Your task to perform on an android device: Go to accessibility settings Image 0: 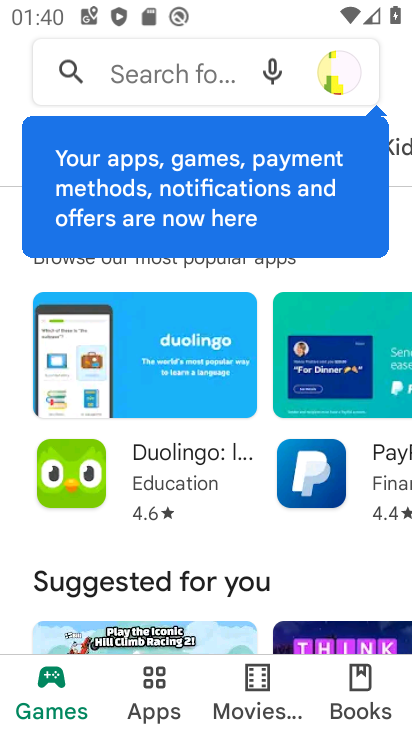
Step 0: press home button
Your task to perform on an android device: Go to accessibility settings Image 1: 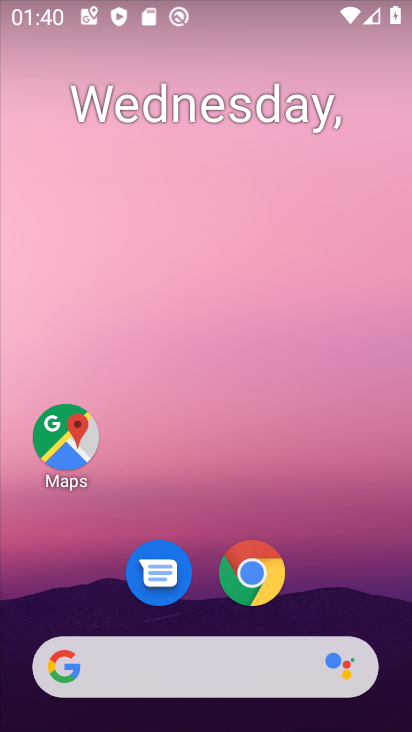
Step 1: drag from (332, 595) to (260, 17)
Your task to perform on an android device: Go to accessibility settings Image 2: 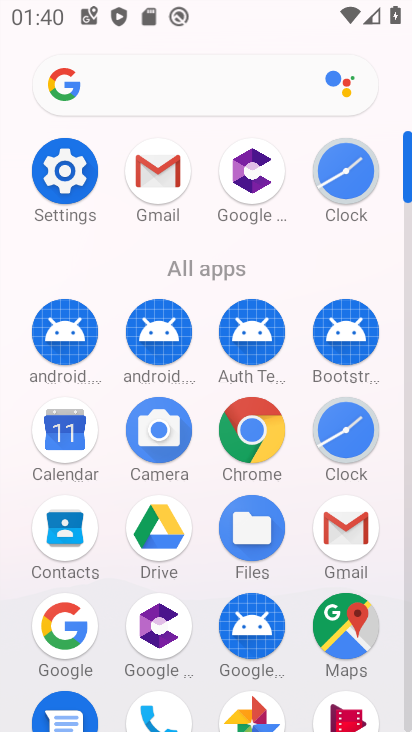
Step 2: click (62, 173)
Your task to perform on an android device: Go to accessibility settings Image 3: 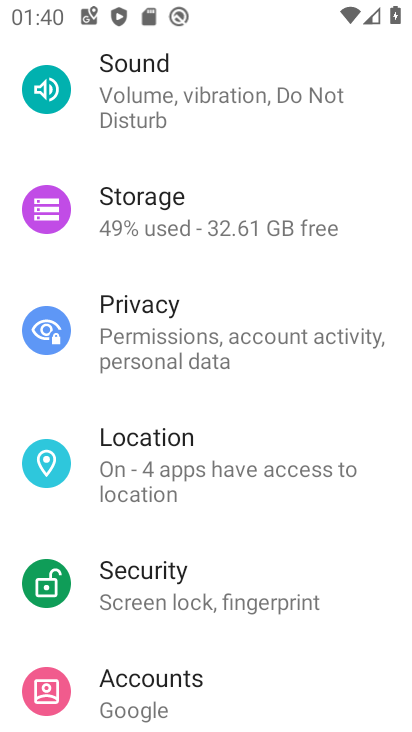
Step 3: drag from (173, 618) to (267, 247)
Your task to perform on an android device: Go to accessibility settings Image 4: 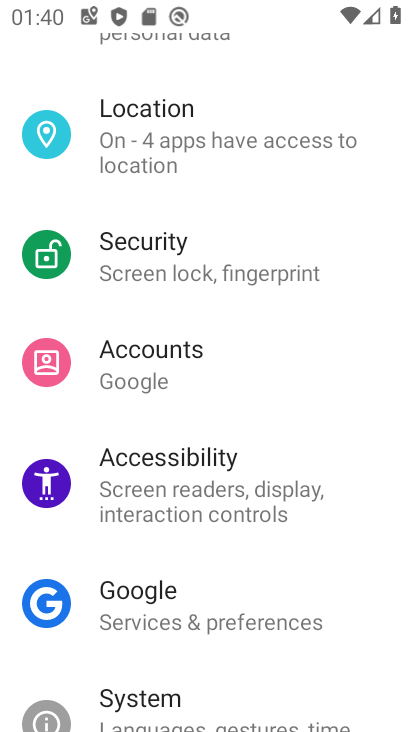
Step 4: click (179, 454)
Your task to perform on an android device: Go to accessibility settings Image 5: 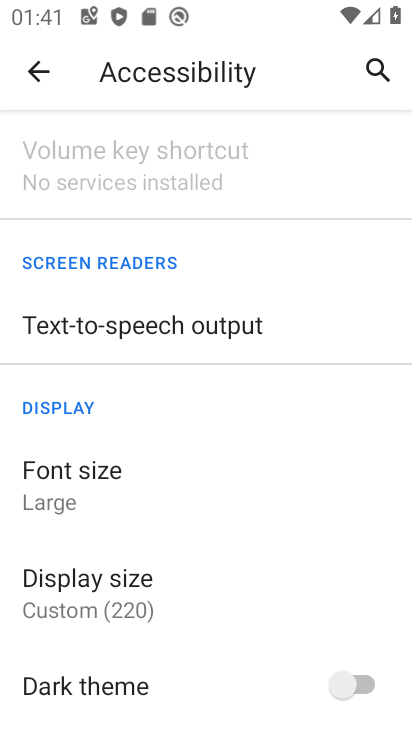
Step 5: task complete